Your task to perform on an android device: Empty the shopping cart on ebay. Search for bose quietcomfort 35 on ebay, select the first entry, add it to the cart, then select checkout. Image 0: 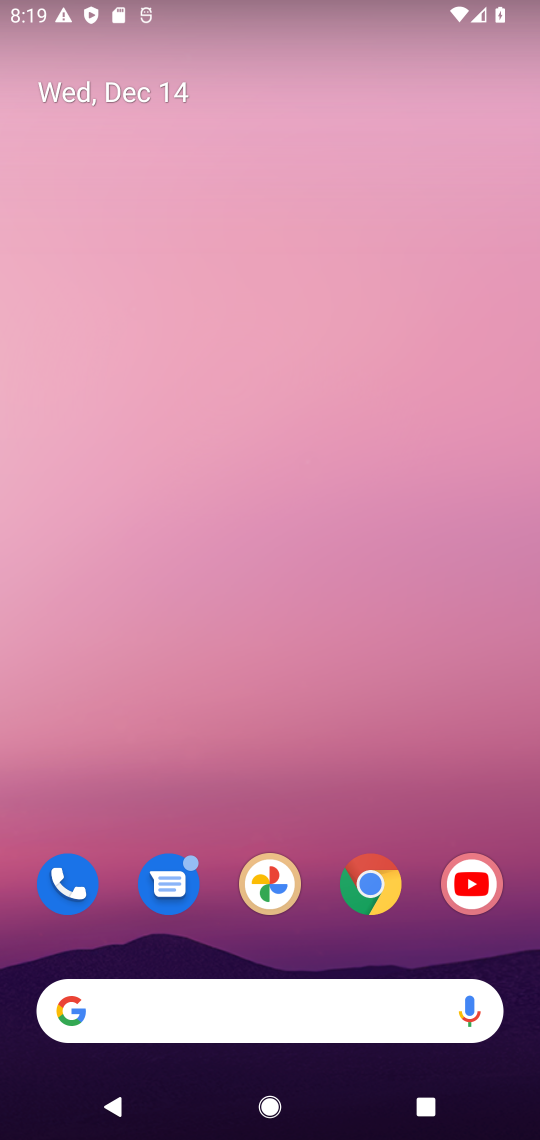
Step 0: click (375, 886)
Your task to perform on an android device: Empty the shopping cart on ebay. Search for bose quietcomfort 35 on ebay, select the first entry, add it to the cart, then select checkout. Image 1: 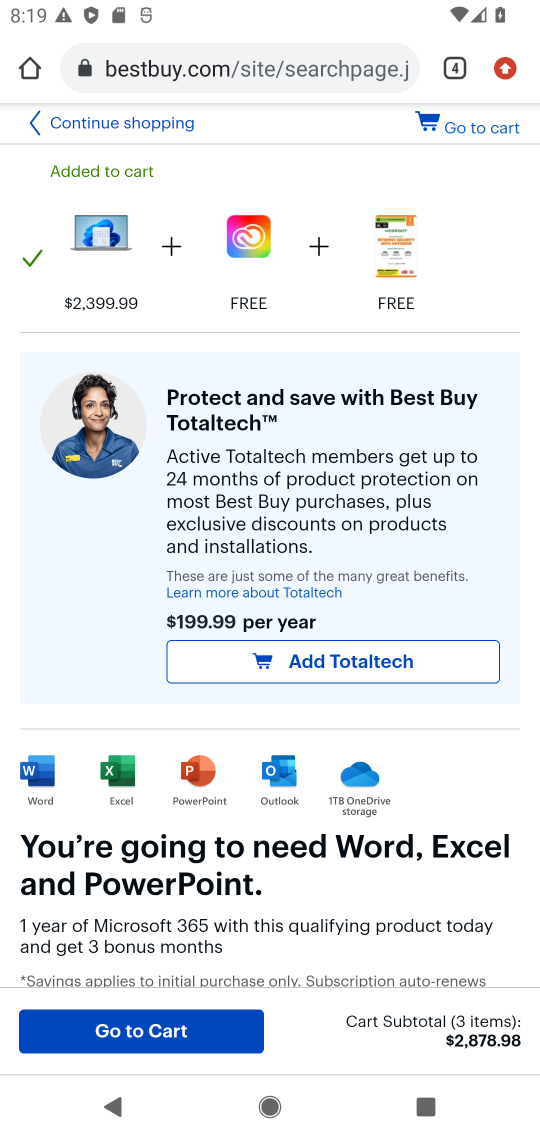
Step 1: click (450, 59)
Your task to perform on an android device: Empty the shopping cart on ebay. Search for bose quietcomfort 35 on ebay, select the first entry, add it to the cart, then select checkout. Image 2: 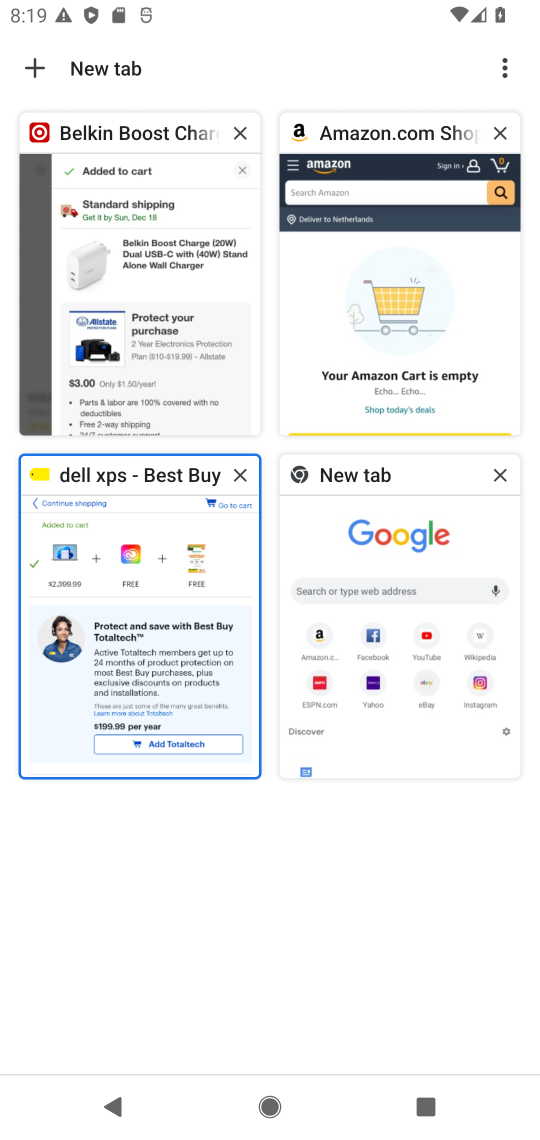
Step 2: click (32, 67)
Your task to perform on an android device: Empty the shopping cart on ebay. Search for bose quietcomfort 35 on ebay, select the first entry, add it to the cart, then select checkout. Image 3: 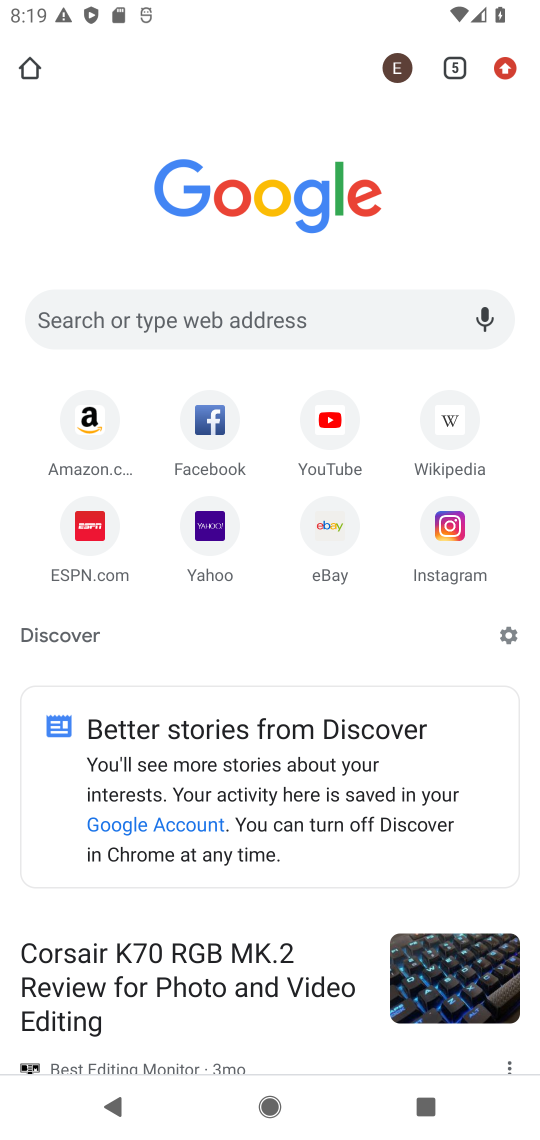
Step 3: click (321, 545)
Your task to perform on an android device: Empty the shopping cart on ebay. Search for bose quietcomfort 35 on ebay, select the first entry, add it to the cart, then select checkout. Image 4: 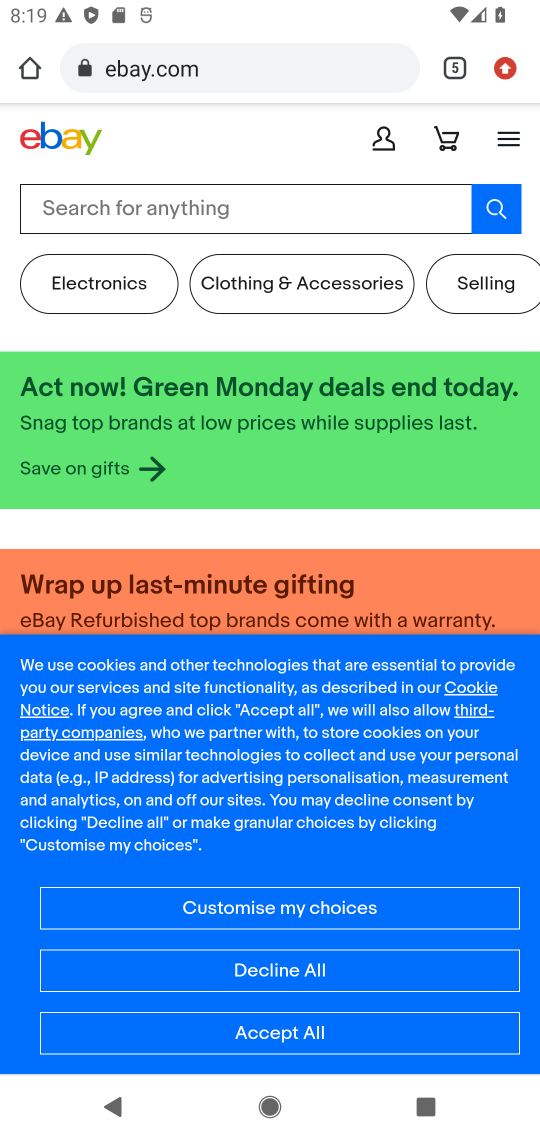
Step 4: click (274, 974)
Your task to perform on an android device: Empty the shopping cart on ebay. Search for bose quietcomfort 35 on ebay, select the first entry, add it to the cart, then select checkout. Image 5: 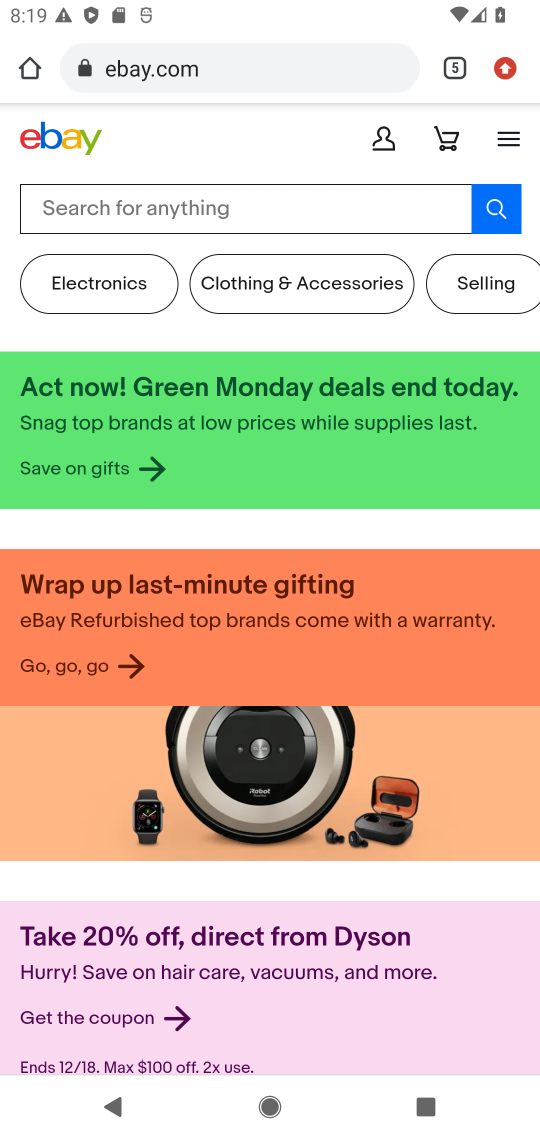
Step 5: click (207, 212)
Your task to perform on an android device: Empty the shopping cart on ebay. Search for bose quietcomfort 35 on ebay, select the first entry, add it to the cart, then select checkout. Image 6: 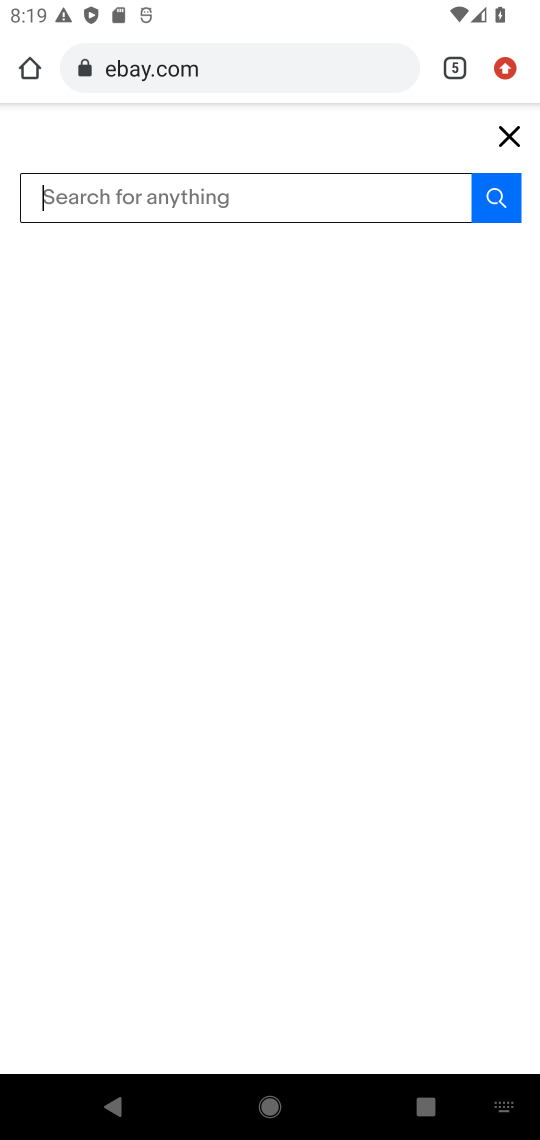
Step 6: type "bose quietcomfort 35 "
Your task to perform on an android device: Empty the shopping cart on ebay. Search for bose quietcomfort 35 on ebay, select the first entry, add it to the cart, then select checkout. Image 7: 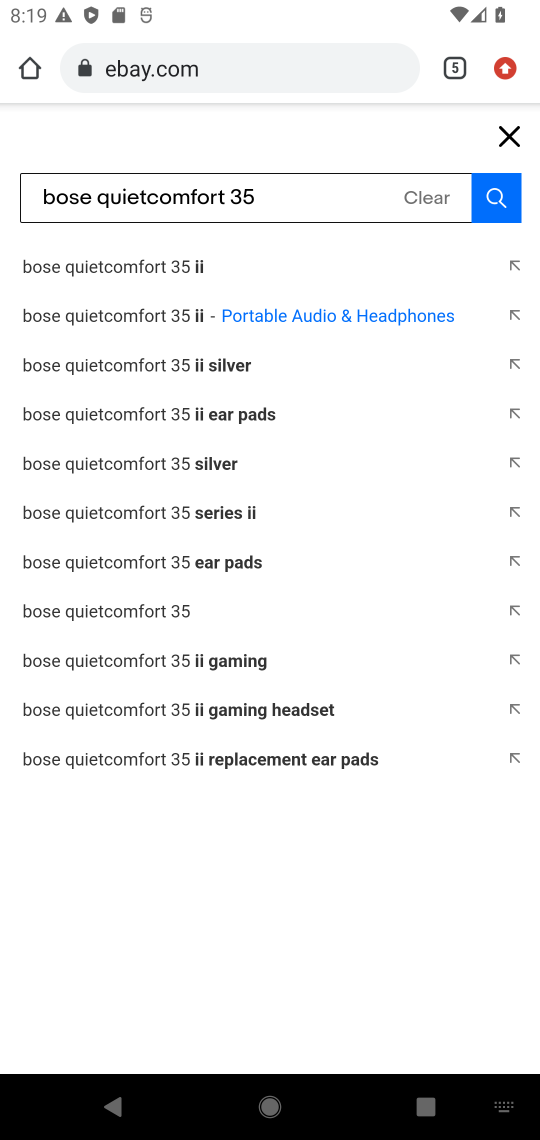
Step 7: click (154, 299)
Your task to perform on an android device: Empty the shopping cart on ebay. Search for bose quietcomfort 35 on ebay, select the first entry, add it to the cart, then select checkout. Image 8: 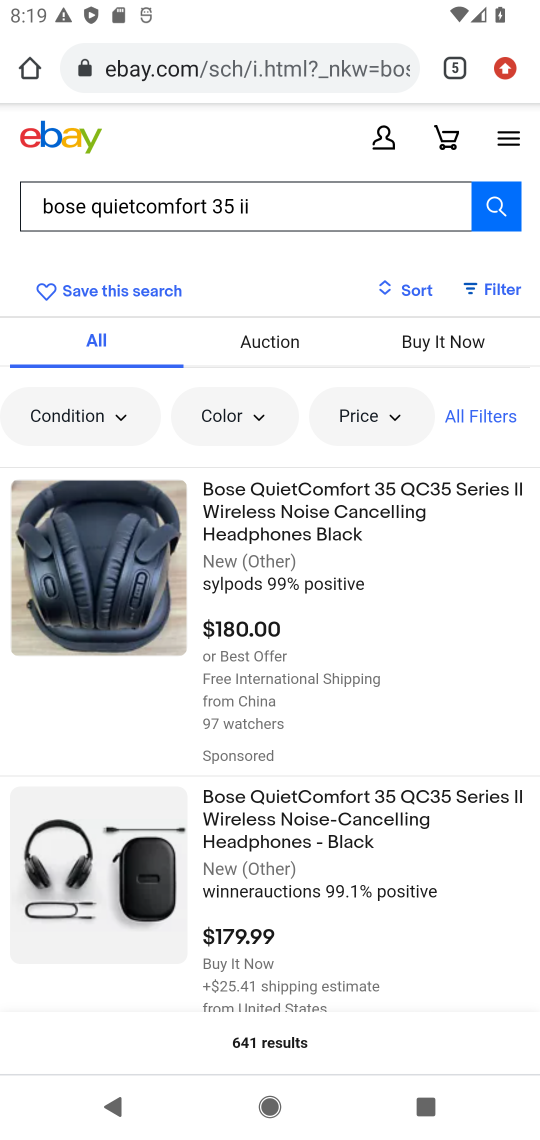
Step 8: click (266, 513)
Your task to perform on an android device: Empty the shopping cart on ebay. Search for bose quietcomfort 35 on ebay, select the first entry, add it to the cart, then select checkout. Image 9: 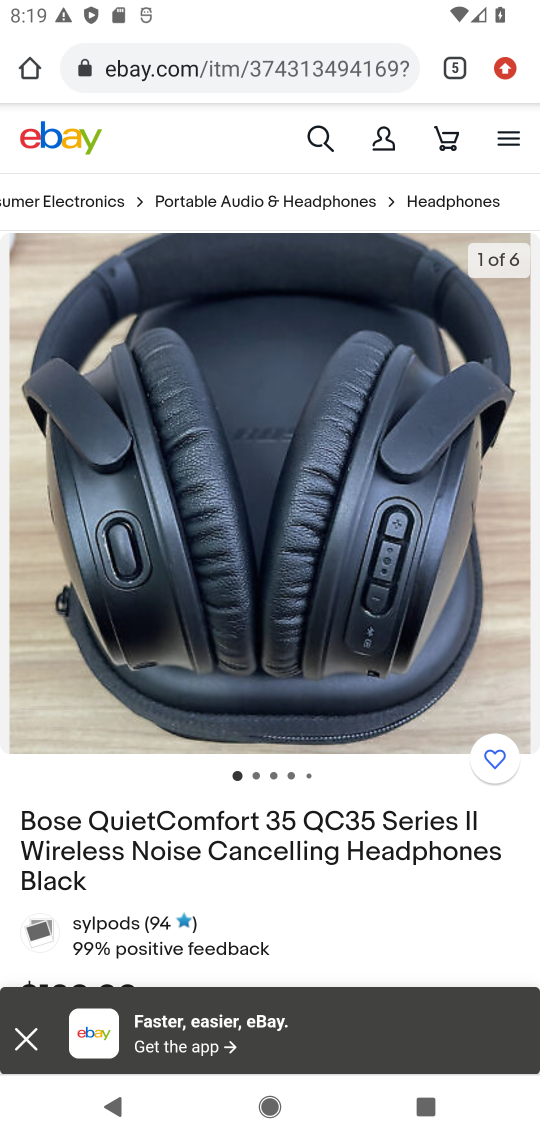
Step 9: drag from (144, 953) to (223, 588)
Your task to perform on an android device: Empty the shopping cart on ebay. Search for bose quietcomfort 35 on ebay, select the first entry, add it to the cart, then select checkout. Image 10: 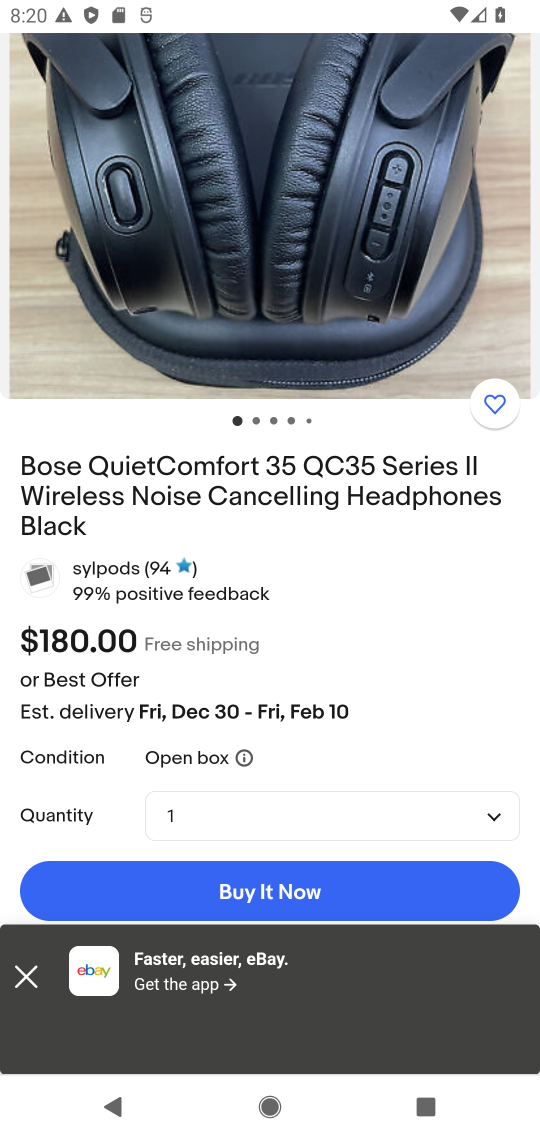
Step 10: click (23, 977)
Your task to perform on an android device: Empty the shopping cart on ebay. Search for bose quietcomfort 35 on ebay, select the first entry, add it to the cart, then select checkout. Image 11: 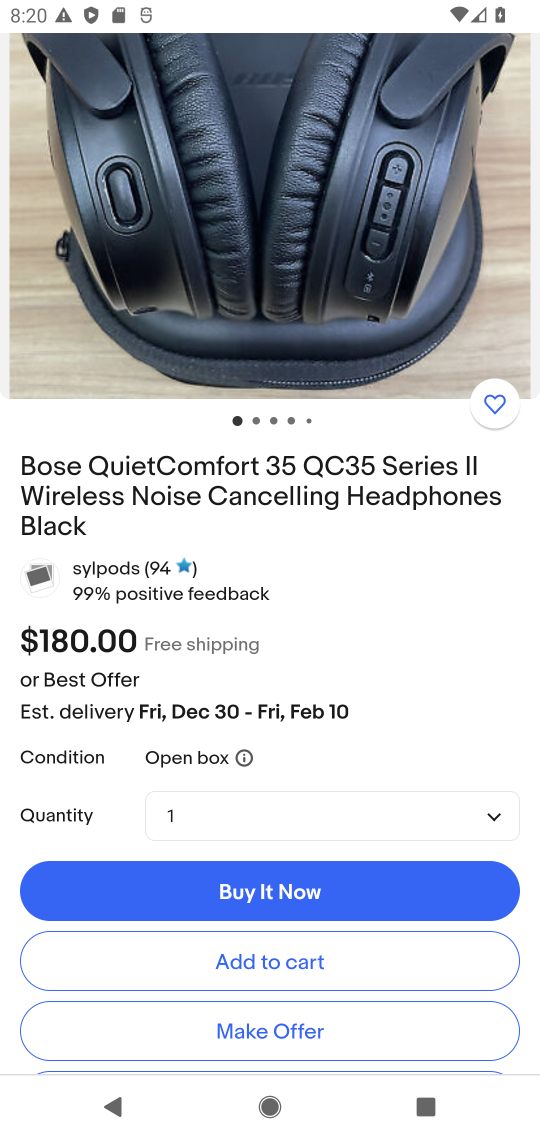
Step 11: click (320, 956)
Your task to perform on an android device: Empty the shopping cart on ebay. Search for bose quietcomfort 35 on ebay, select the first entry, add it to the cart, then select checkout. Image 12: 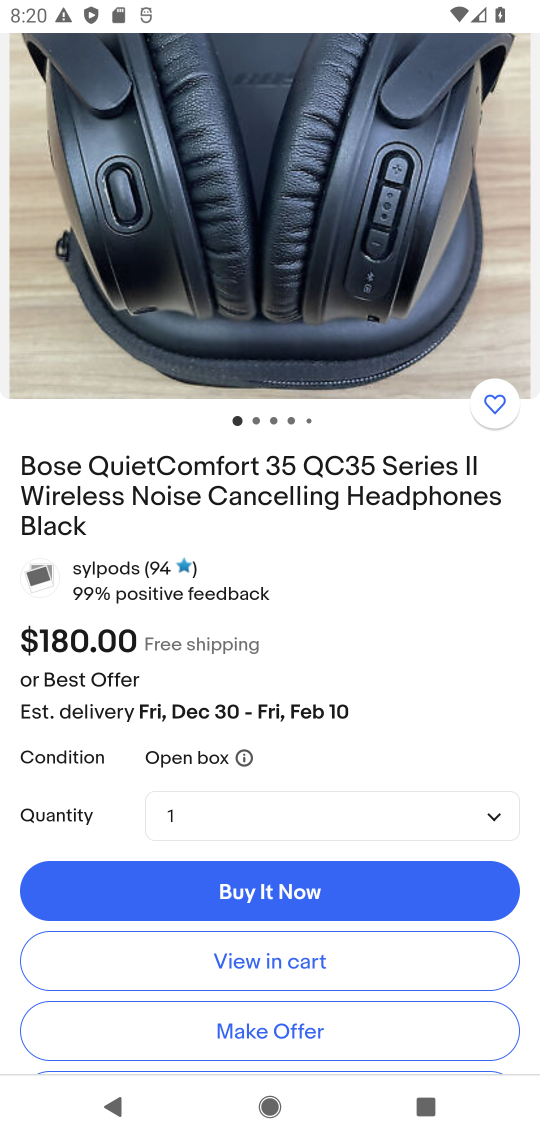
Step 12: task complete